Your task to perform on an android device: set the timer Image 0: 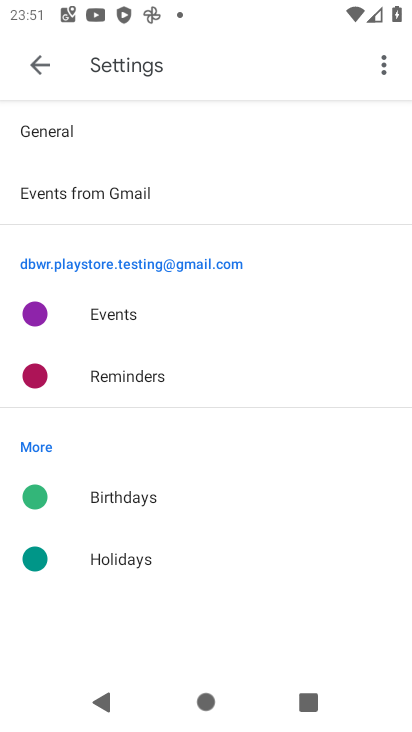
Step 0: press home button
Your task to perform on an android device: set the timer Image 1: 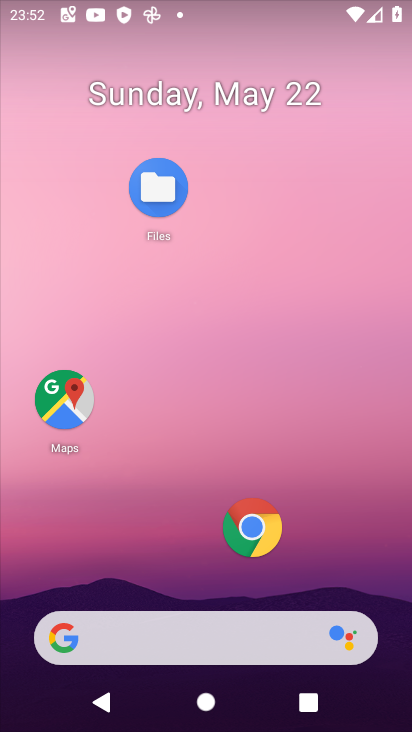
Step 1: press home button
Your task to perform on an android device: set the timer Image 2: 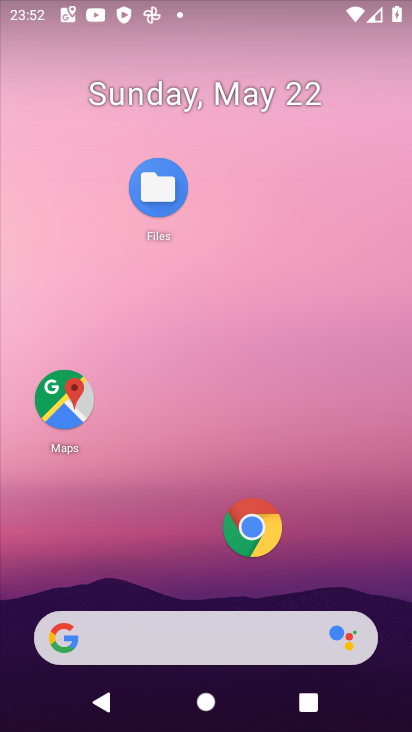
Step 2: drag from (186, 525) to (207, 20)
Your task to perform on an android device: set the timer Image 3: 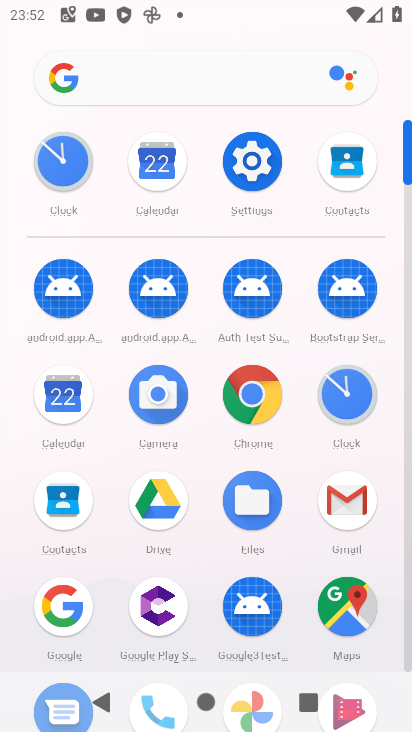
Step 3: click (344, 392)
Your task to perform on an android device: set the timer Image 4: 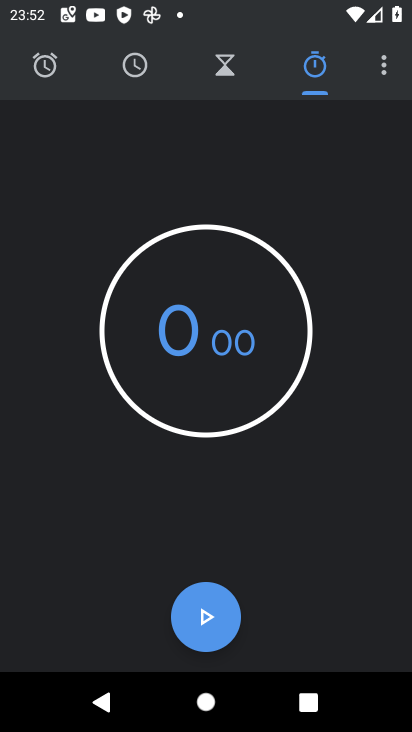
Step 4: click (224, 72)
Your task to perform on an android device: set the timer Image 5: 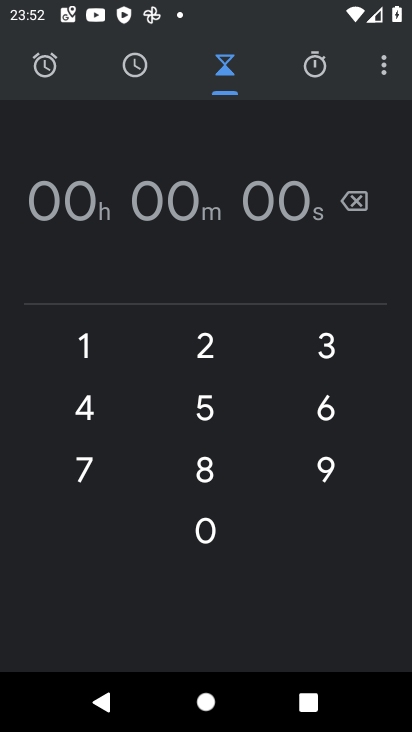
Step 5: click (86, 342)
Your task to perform on an android device: set the timer Image 6: 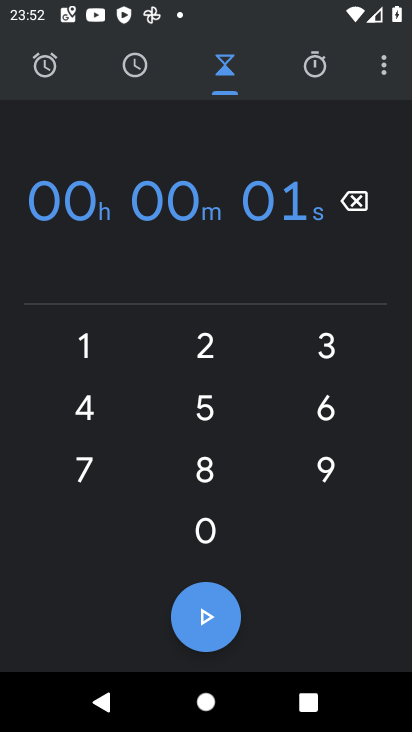
Step 6: click (86, 342)
Your task to perform on an android device: set the timer Image 7: 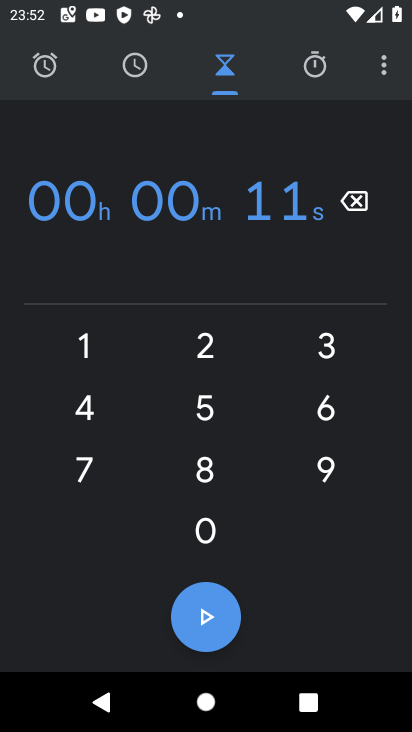
Step 7: click (86, 342)
Your task to perform on an android device: set the timer Image 8: 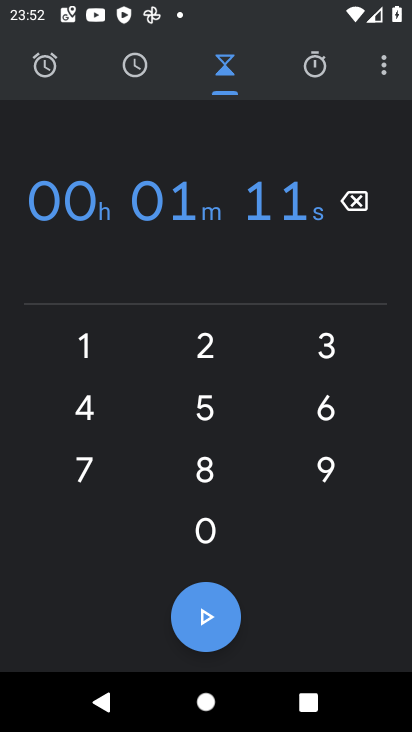
Step 8: click (86, 342)
Your task to perform on an android device: set the timer Image 9: 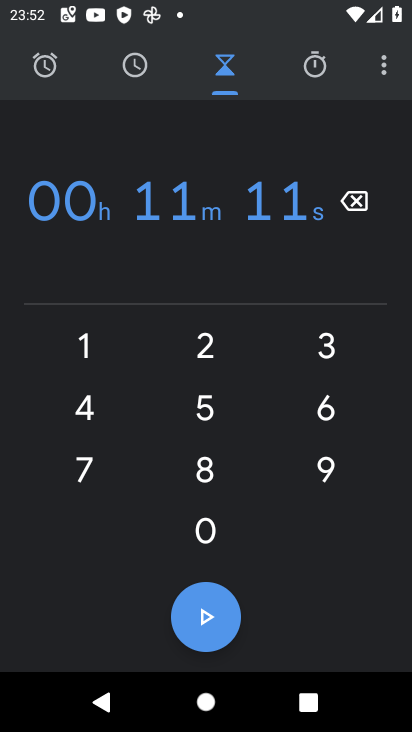
Step 9: click (86, 342)
Your task to perform on an android device: set the timer Image 10: 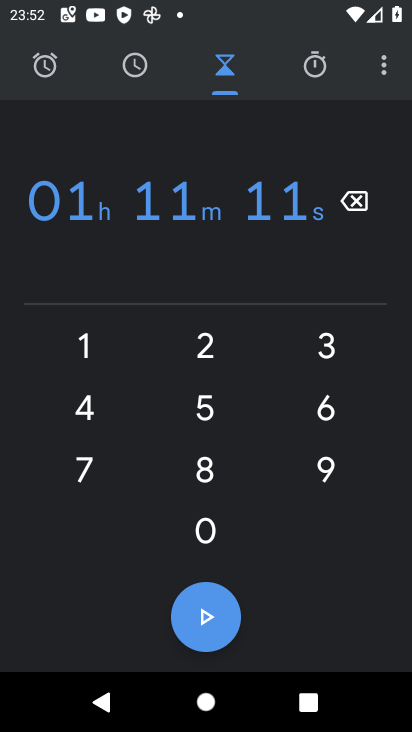
Step 10: task complete